Your task to perform on an android device: refresh tabs in the chrome app Image 0: 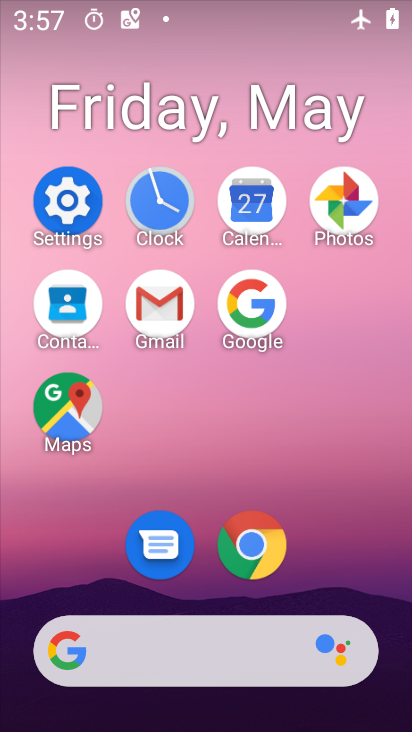
Step 0: click (253, 586)
Your task to perform on an android device: refresh tabs in the chrome app Image 1: 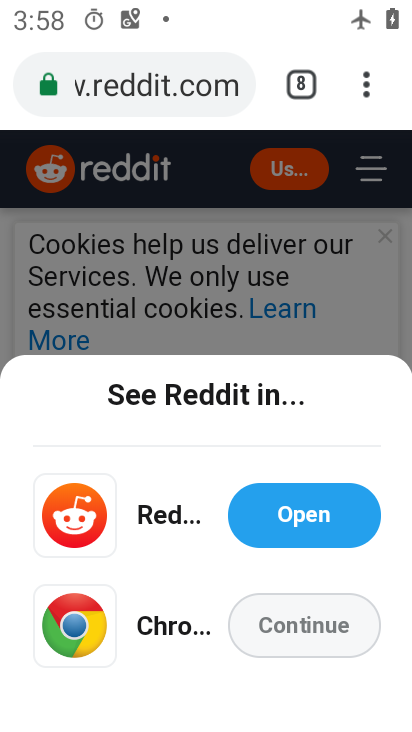
Step 1: click (389, 91)
Your task to perform on an android device: refresh tabs in the chrome app Image 2: 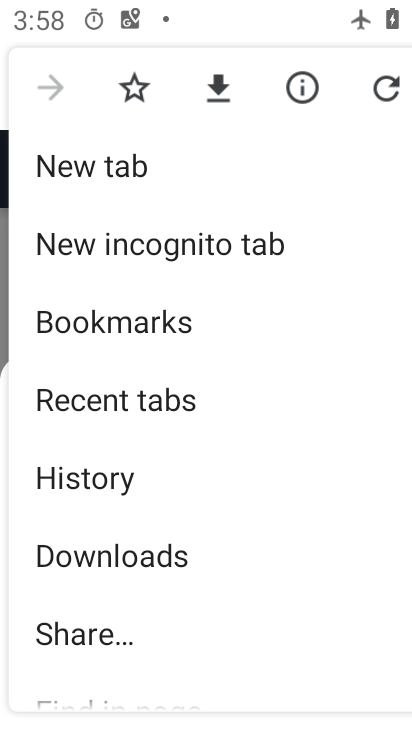
Step 2: click (388, 91)
Your task to perform on an android device: refresh tabs in the chrome app Image 3: 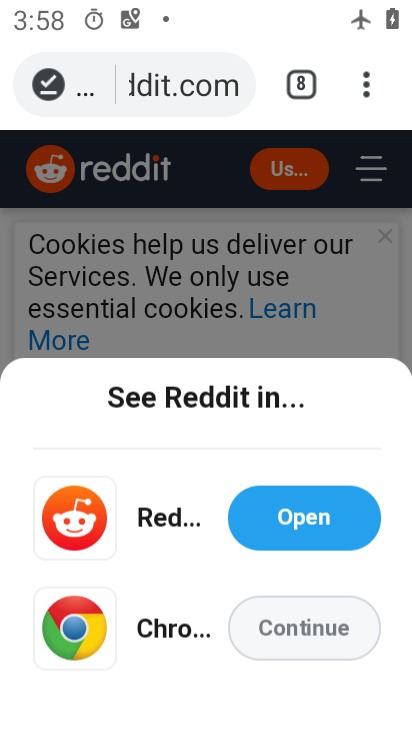
Step 3: task complete